Your task to perform on an android device: Open the stopwatch Image 0: 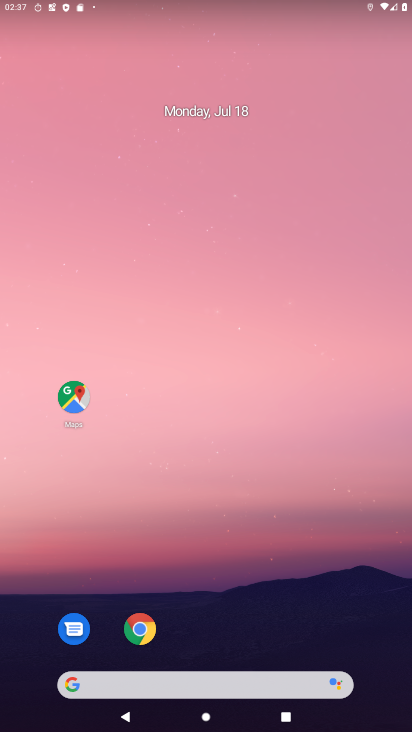
Step 0: drag from (218, 594) to (222, 119)
Your task to perform on an android device: Open the stopwatch Image 1: 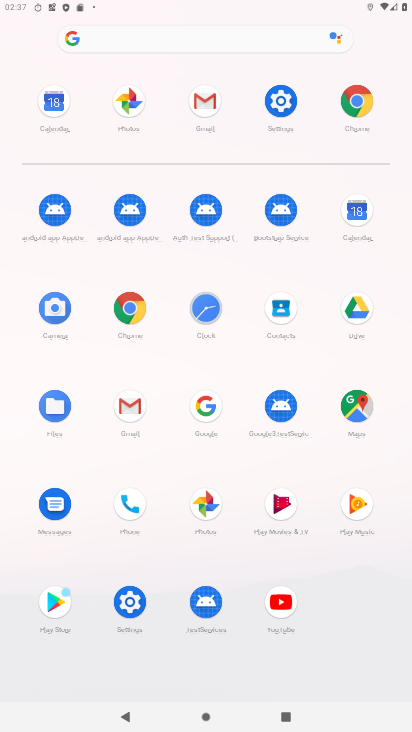
Step 1: click (205, 298)
Your task to perform on an android device: Open the stopwatch Image 2: 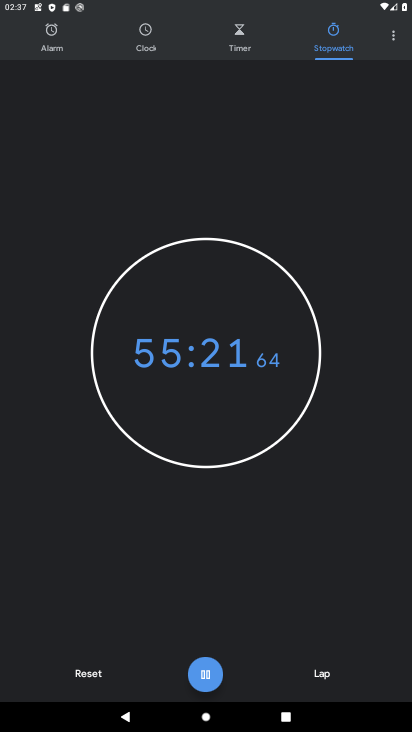
Step 2: click (208, 670)
Your task to perform on an android device: Open the stopwatch Image 3: 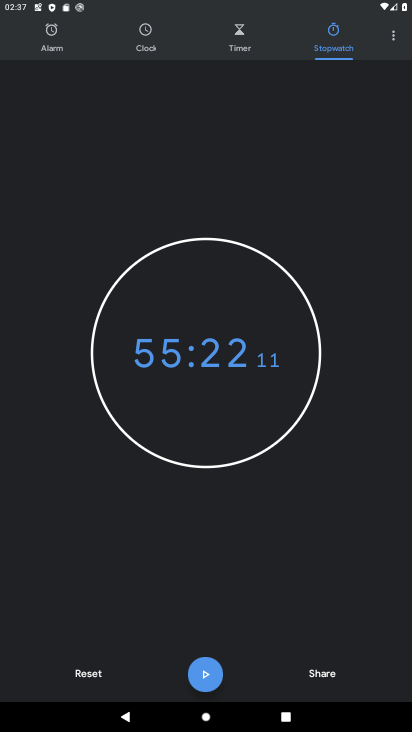
Step 3: click (85, 671)
Your task to perform on an android device: Open the stopwatch Image 4: 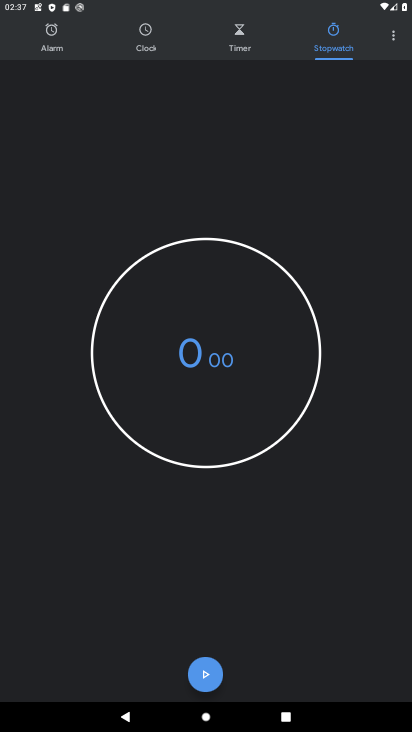
Step 4: click (207, 672)
Your task to perform on an android device: Open the stopwatch Image 5: 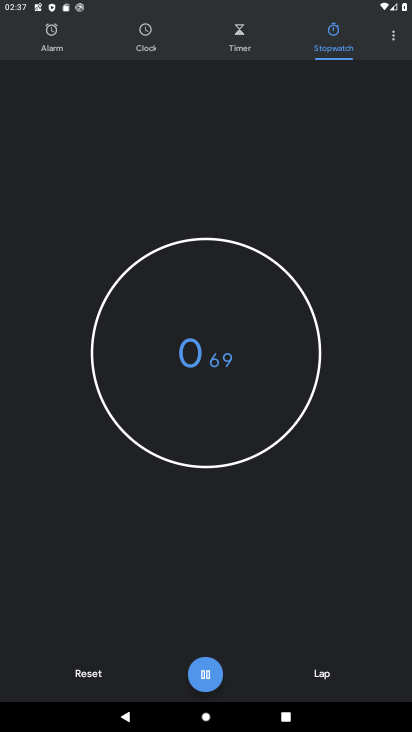
Step 5: task complete